Your task to perform on an android device: turn on translation in the chrome app Image 0: 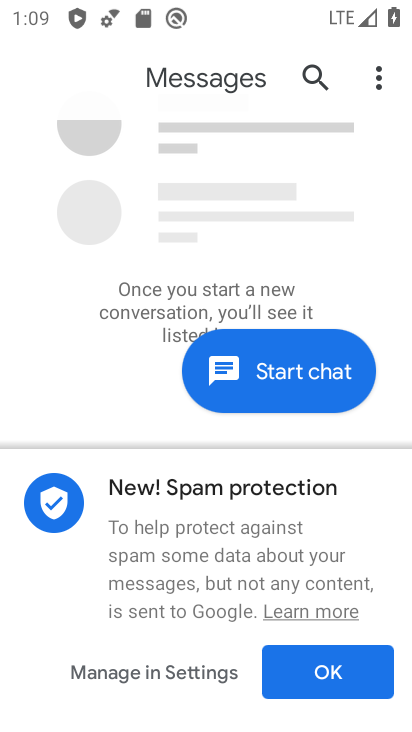
Step 0: press home button
Your task to perform on an android device: turn on translation in the chrome app Image 1: 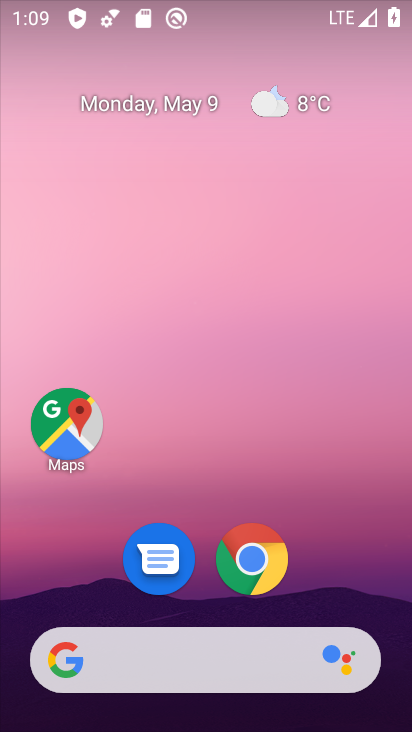
Step 1: click (259, 564)
Your task to perform on an android device: turn on translation in the chrome app Image 2: 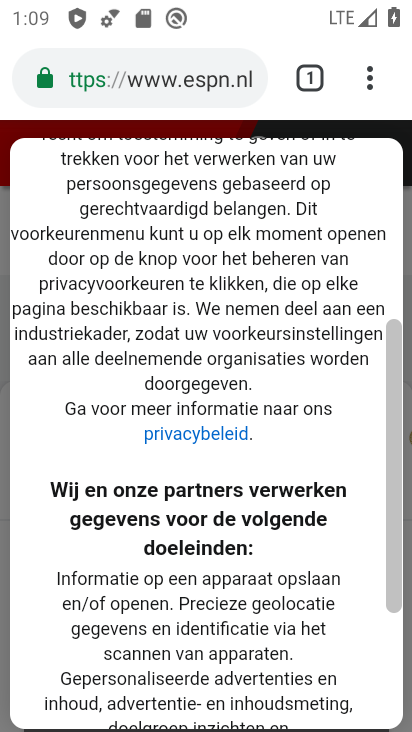
Step 2: click (371, 87)
Your task to perform on an android device: turn on translation in the chrome app Image 3: 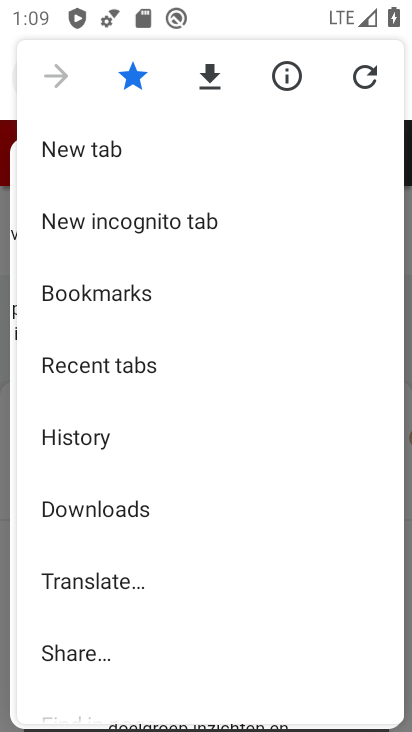
Step 3: drag from (239, 539) to (69, 125)
Your task to perform on an android device: turn on translation in the chrome app Image 4: 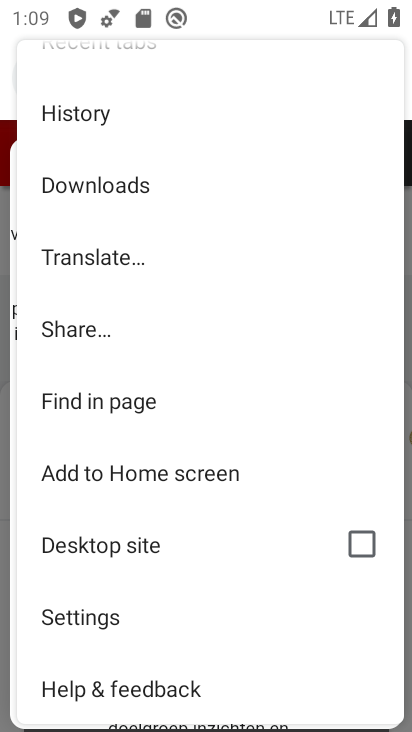
Step 4: click (81, 620)
Your task to perform on an android device: turn on translation in the chrome app Image 5: 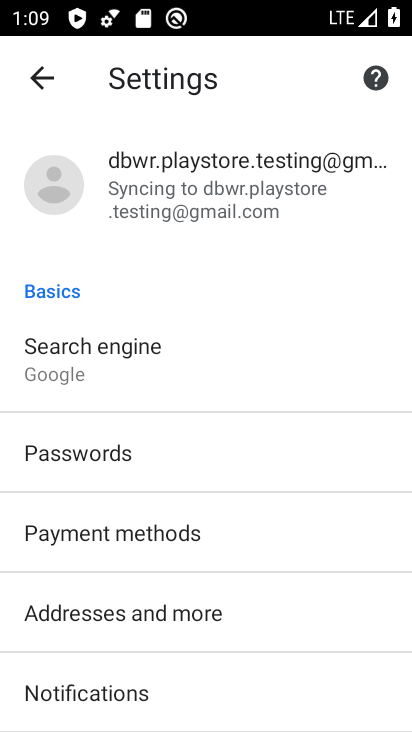
Step 5: drag from (302, 598) to (221, 246)
Your task to perform on an android device: turn on translation in the chrome app Image 6: 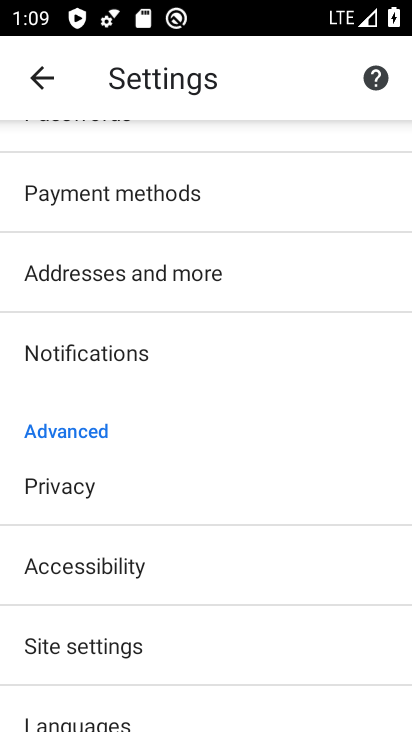
Step 6: click (74, 724)
Your task to perform on an android device: turn on translation in the chrome app Image 7: 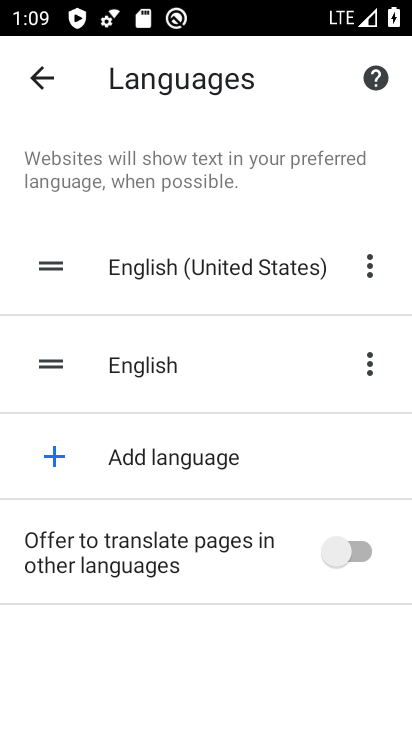
Step 7: click (346, 555)
Your task to perform on an android device: turn on translation in the chrome app Image 8: 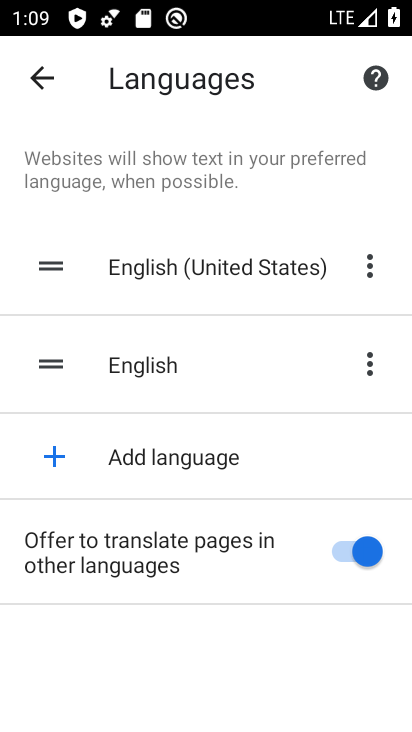
Step 8: task complete